Your task to perform on an android device: Is it going to rain this weekend? Image 0: 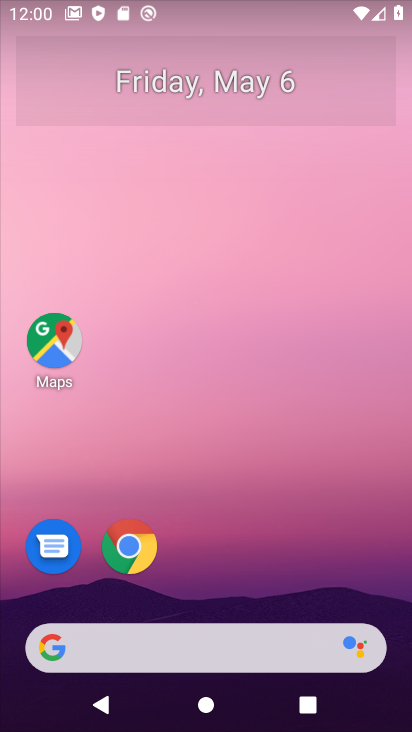
Step 0: drag from (292, 609) to (13, 28)
Your task to perform on an android device: Is it going to rain this weekend? Image 1: 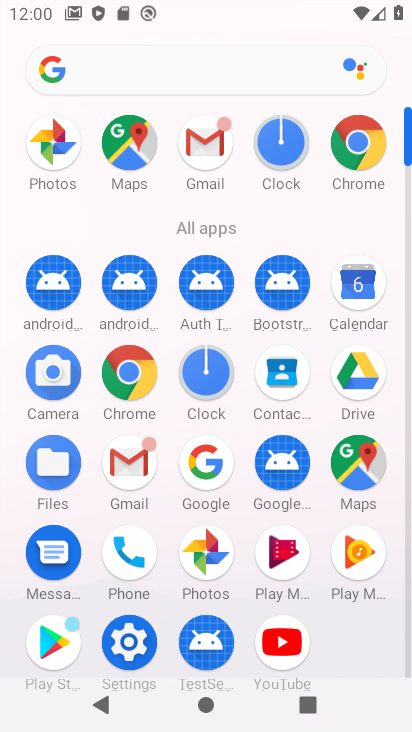
Step 1: type "rain"
Your task to perform on an android device: Is it going to rain this weekend? Image 2: 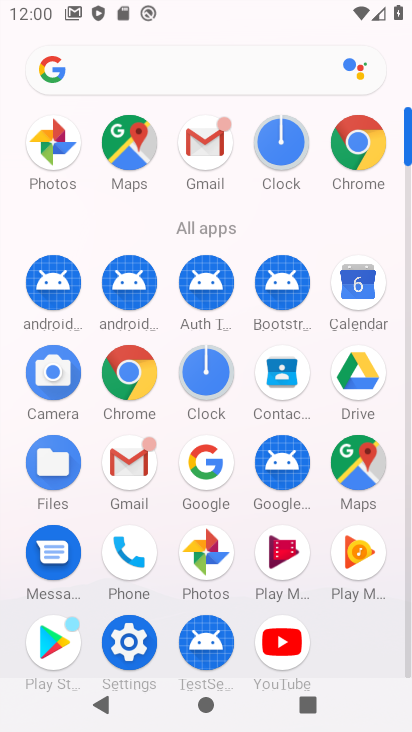
Step 2: click (128, 364)
Your task to perform on an android device: Is it going to rain this weekend? Image 3: 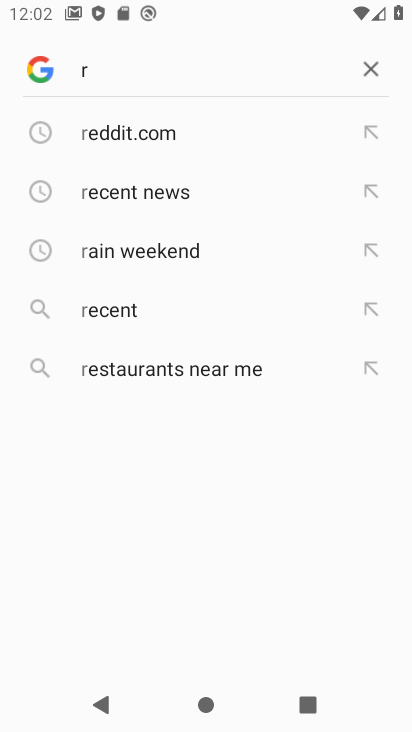
Step 3: type "rain this weekend"
Your task to perform on an android device: Is it going to rain this weekend? Image 4: 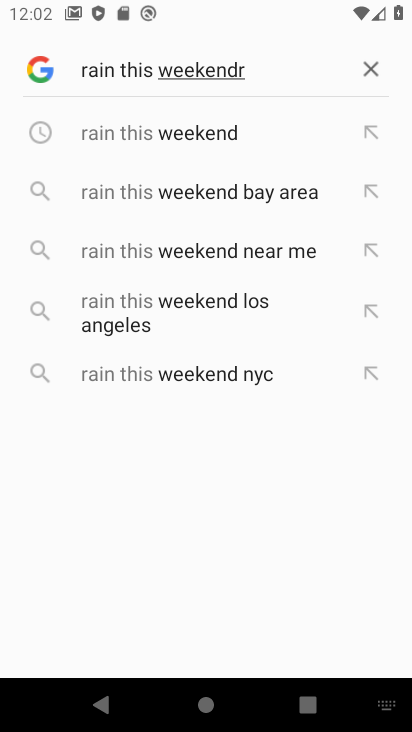
Step 4: click (256, 143)
Your task to perform on an android device: Is it going to rain this weekend? Image 5: 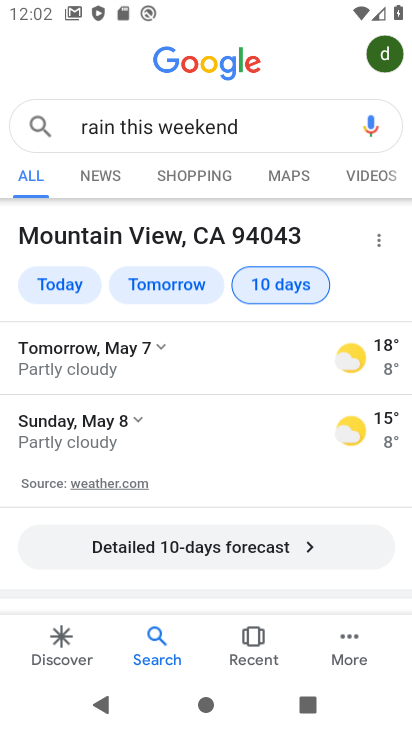
Step 5: task complete